Your task to perform on an android device: turn off location history Image 0: 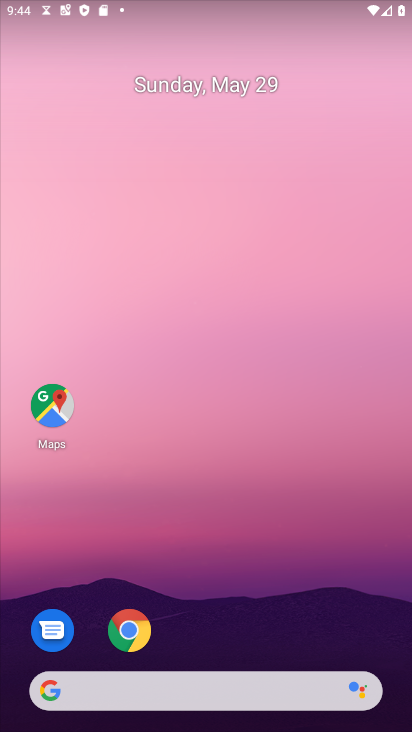
Step 0: drag from (221, 604) to (199, 321)
Your task to perform on an android device: turn off location history Image 1: 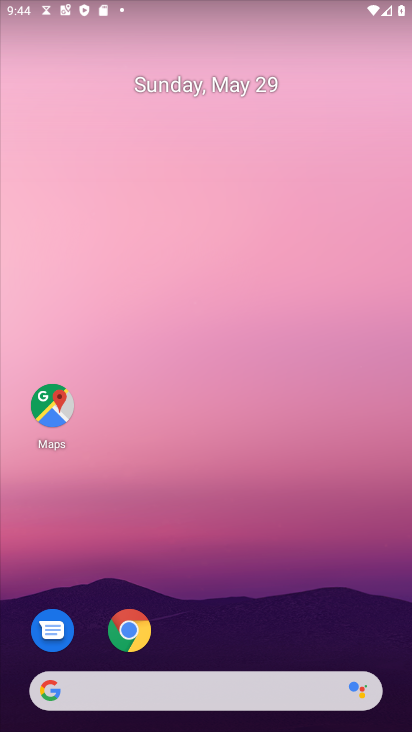
Step 1: drag from (244, 498) to (291, 49)
Your task to perform on an android device: turn off location history Image 2: 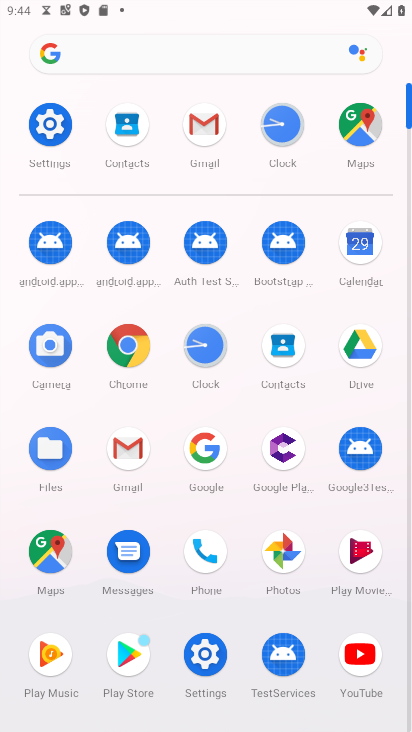
Step 2: click (64, 125)
Your task to perform on an android device: turn off location history Image 3: 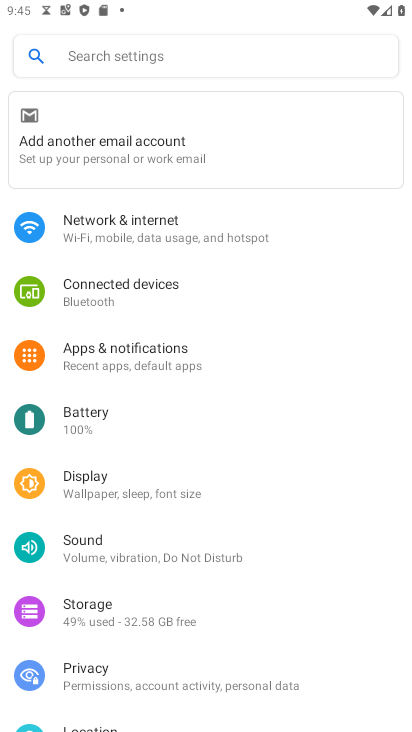
Step 3: drag from (262, 603) to (274, 130)
Your task to perform on an android device: turn off location history Image 4: 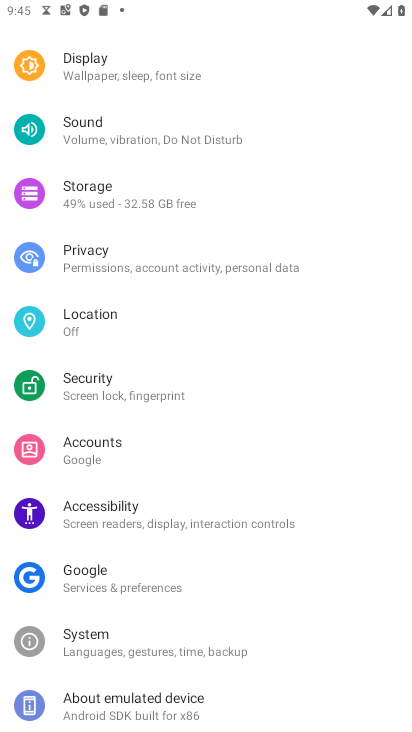
Step 4: click (114, 325)
Your task to perform on an android device: turn off location history Image 5: 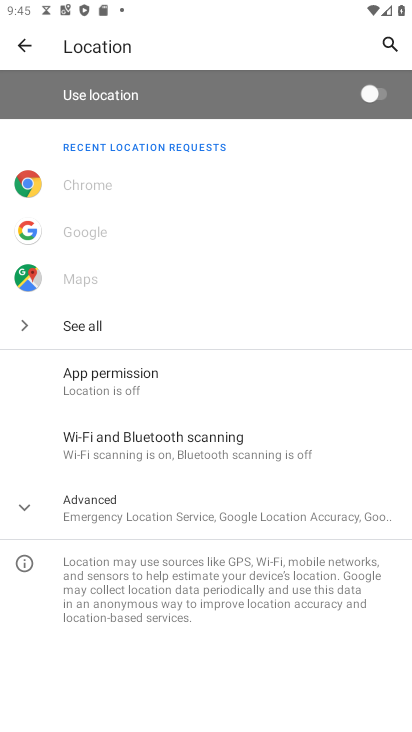
Step 5: click (144, 504)
Your task to perform on an android device: turn off location history Image 6: 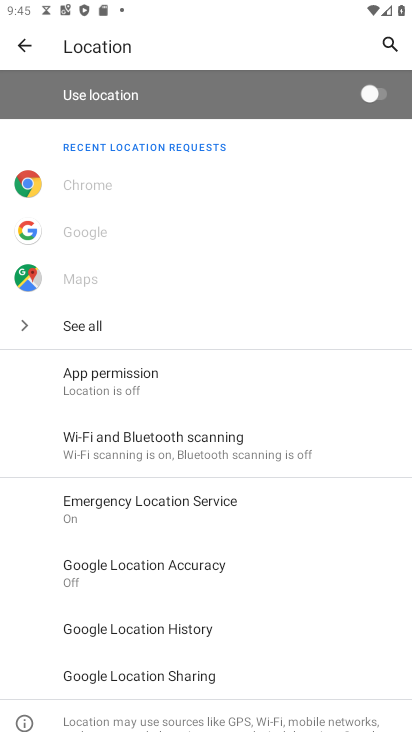
Step 6: click (167, 628)
Your task to perform on an android device: turn off location history Image 7: 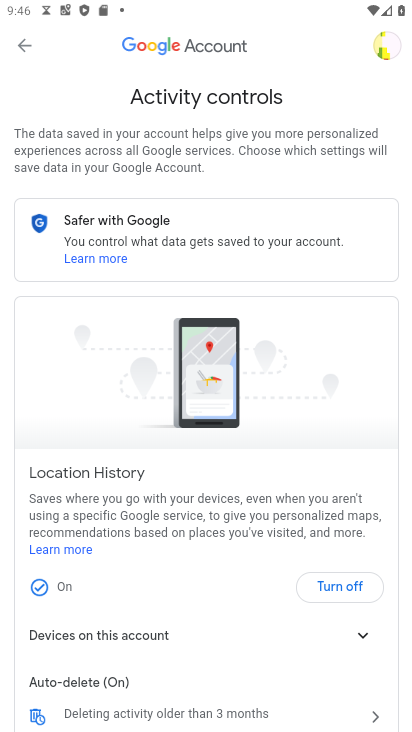
Step 7: click (348, 584)
Your task to perform on an android device: turn off location history Image 8: 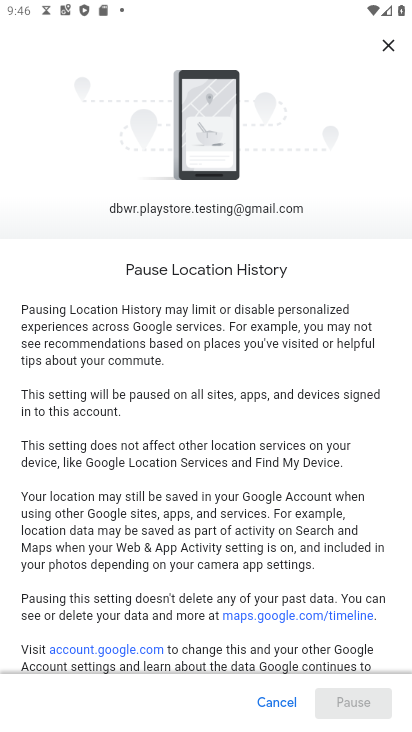
Step 8: drag from (334, 645) to (329, 233)
Your task to perform on an android device: turn off location history Image 9: 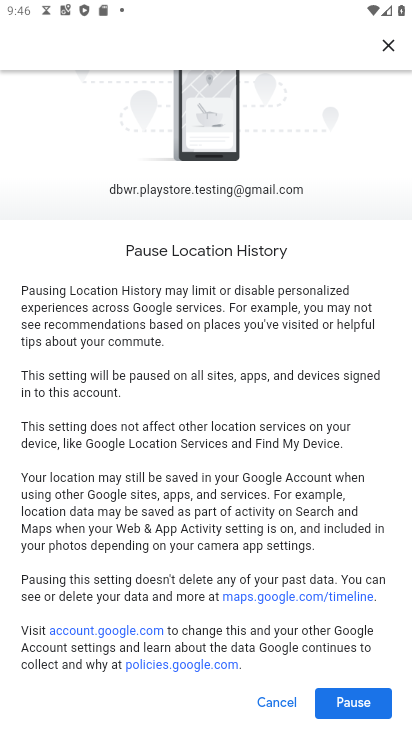
Step 9: click (356, 700)
Your task to perform on an android device: turn off location history Image 10: 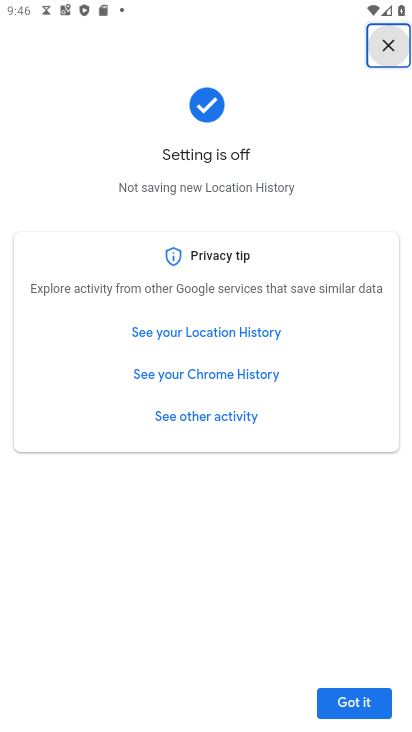
Step 10: click (364, 697)
Your task to perform on an android device: turn off location history Image 11: 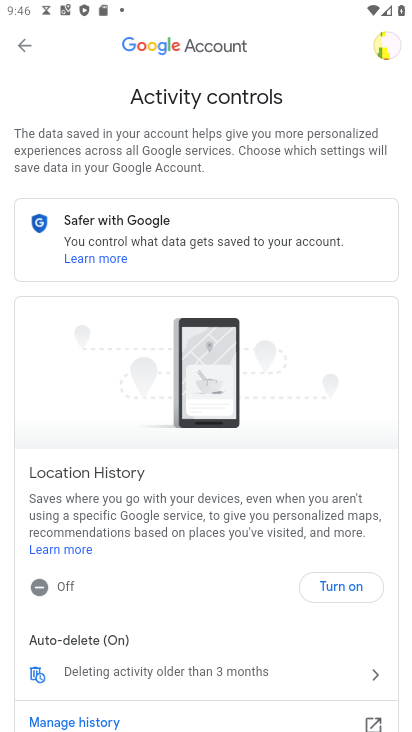
Step 11: task complete